Your task to perform on an android device: check google app version Image 0: 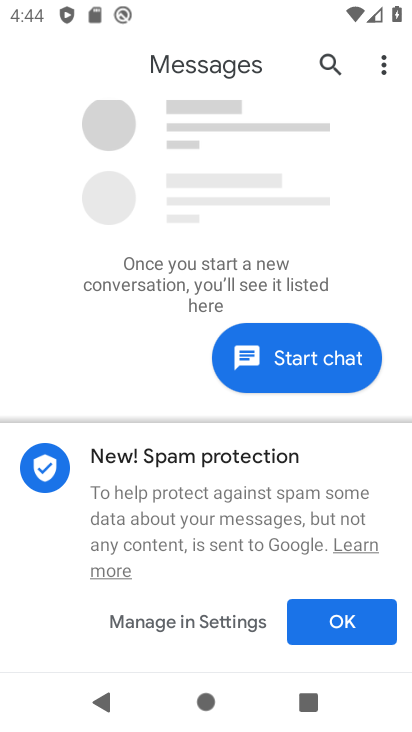
Step 0: press back button
Your task to perform on an android device: check google app version Image 1: 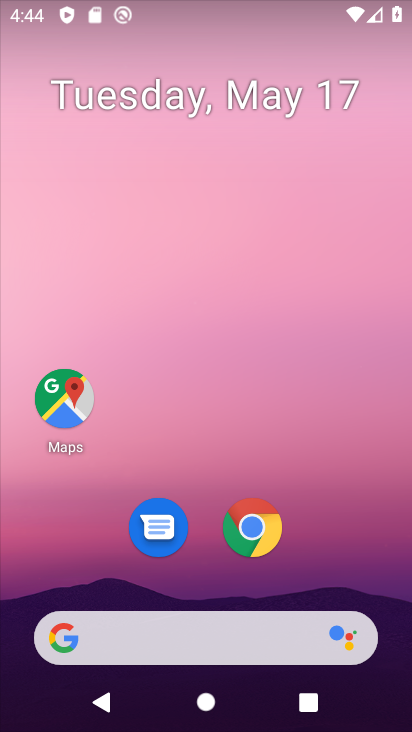
Step 1: drag from (326, 568) to (191, 36)
Your task to perform on an android device: check google app version Image 2: 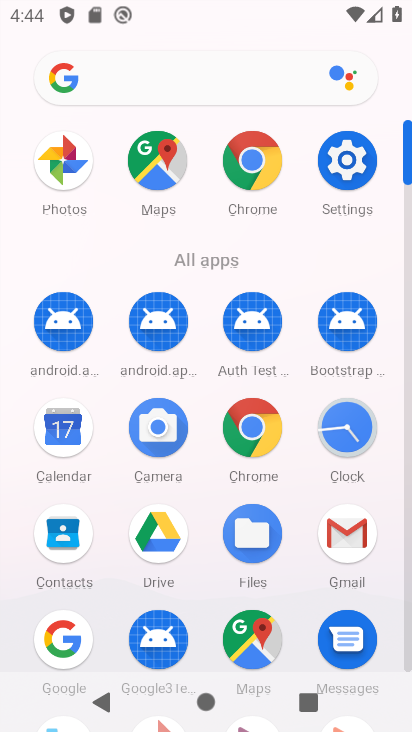
Step 2: drag from (24, 473) to (15, 143)
Your task to perform on an android device: check google app version Image 3: 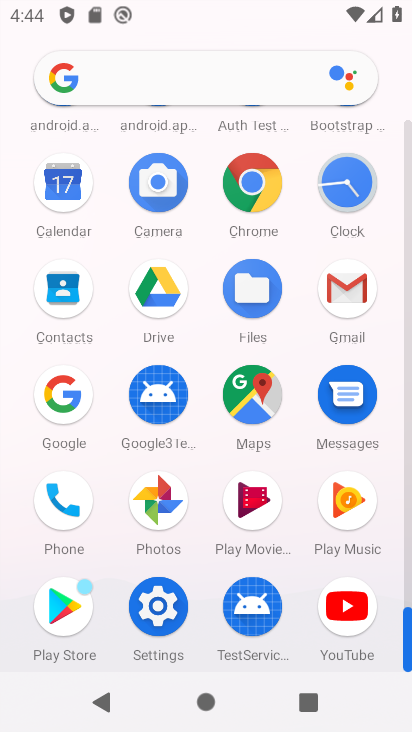
Step 3: drag from (28, 586) to (8, 319)
Your task to perform on an android device: check google app version Image 4: 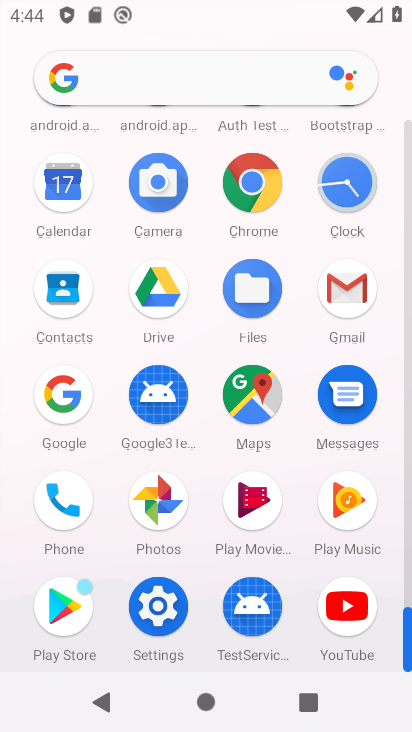
Step 4: drag from (15, 584) to (15, 204)
Your task to perform on an android device: check google app version Image 5: 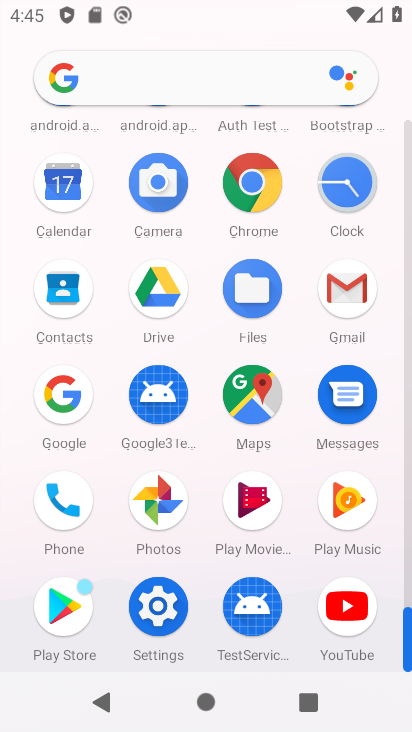
Step 5: drag from (231, 171) to (216, 501)
Your task to perform on an android device: check google app version Image 6: 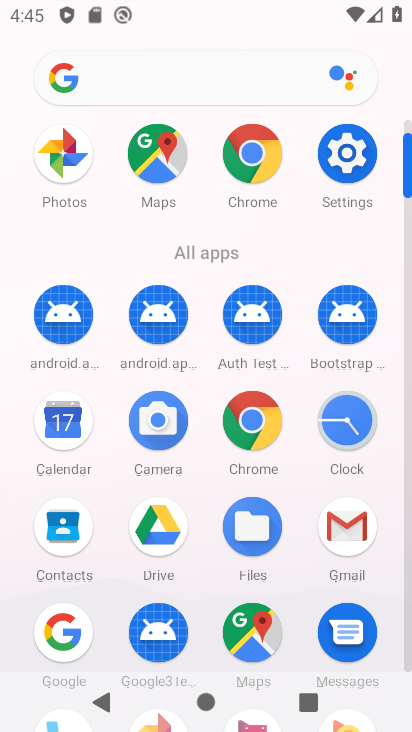
Step 6: drag from (182, 594) to (189, 249)
Your task to perform on an android device: check google app version Image 7: 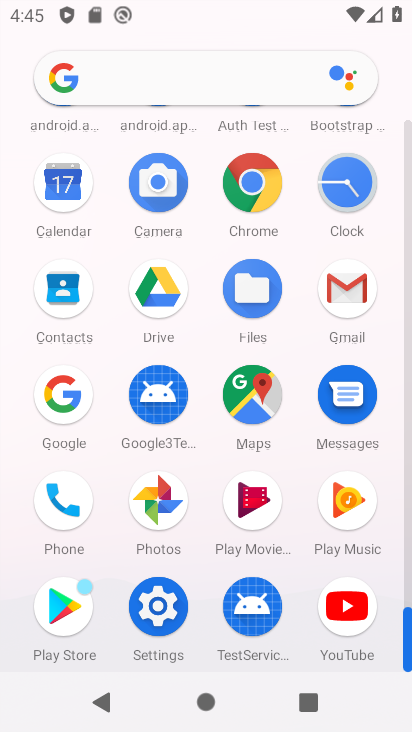
Step 7: drag from (213, 547) to (210, 209)
Your task to perform on an android device: check google app version Image 8: 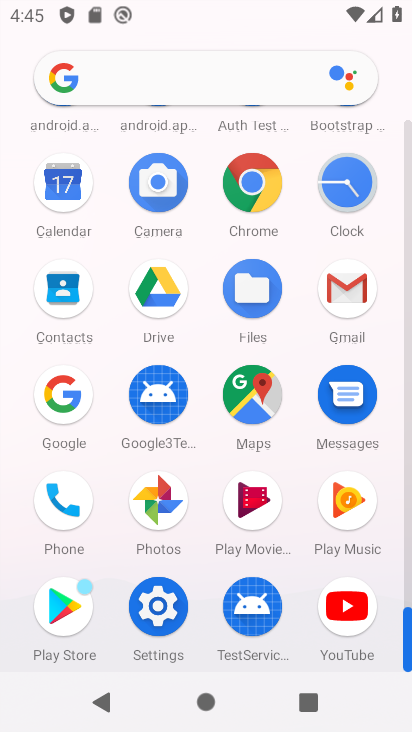
Step 8: click (59, 403)
Your task to perform on an android device: check google app version Image 9: 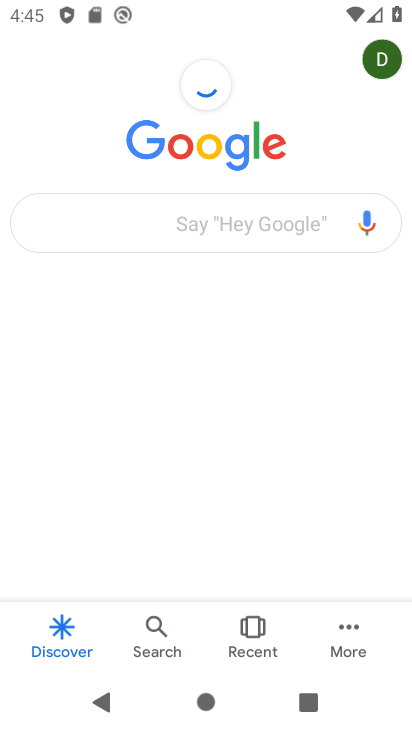
Step 9: click (345, 632)
Your task to perform on an android device: check google app version Image 10: 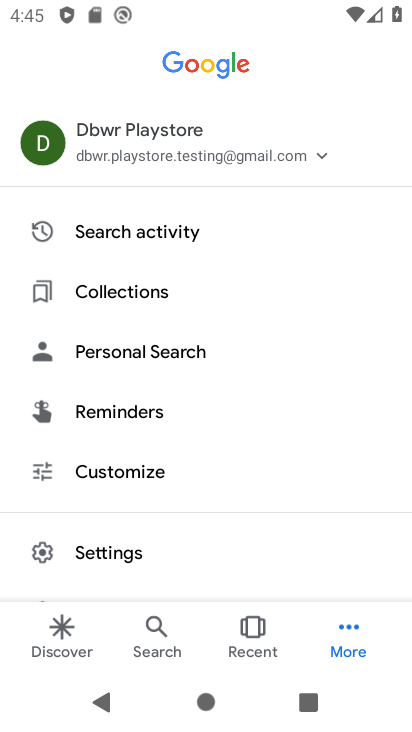
Step 10: click (146, 551)
Your task to perform on an android device: check google app version Image 11: 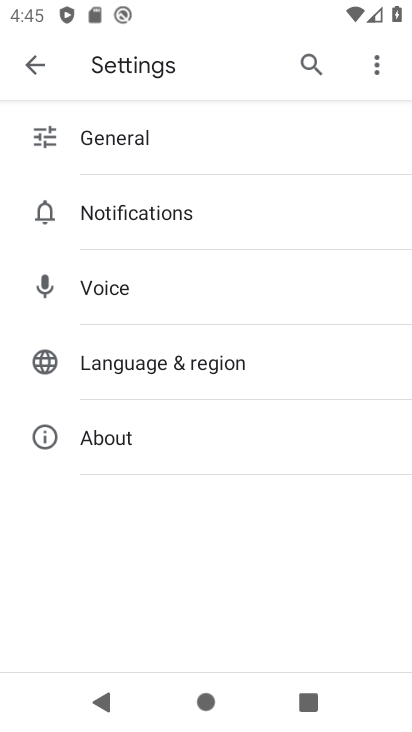
Step 11: click (122, 434)
Your task to perform on an android device: check google app version Image 12: 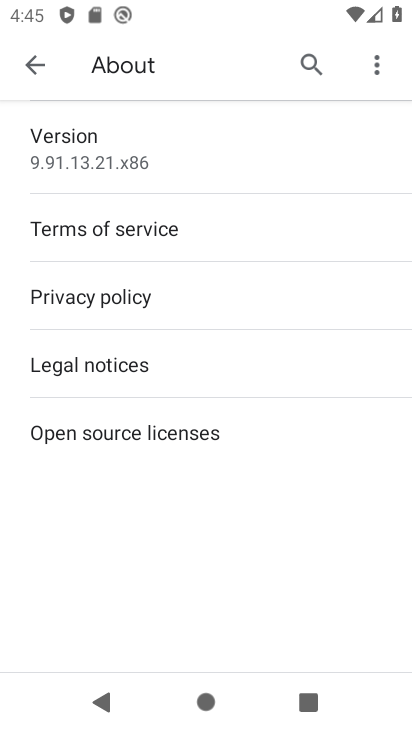
Step 12: task complete